Your task to perform on an android device: Open accessibility settings Image 0: 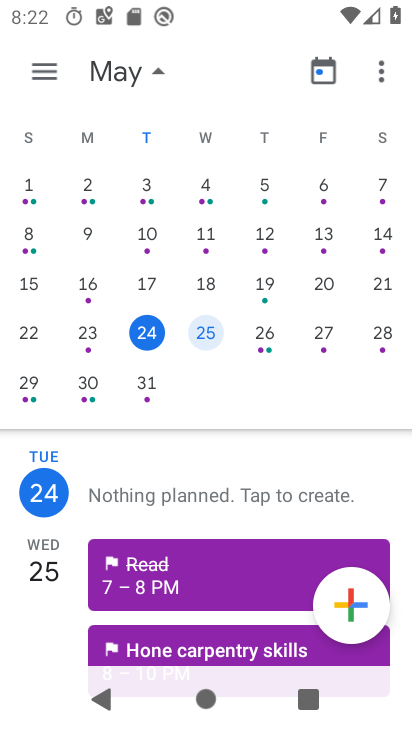
Step 0: press home button
Your task to perform on an android device: Open accessibility settings Image 1: 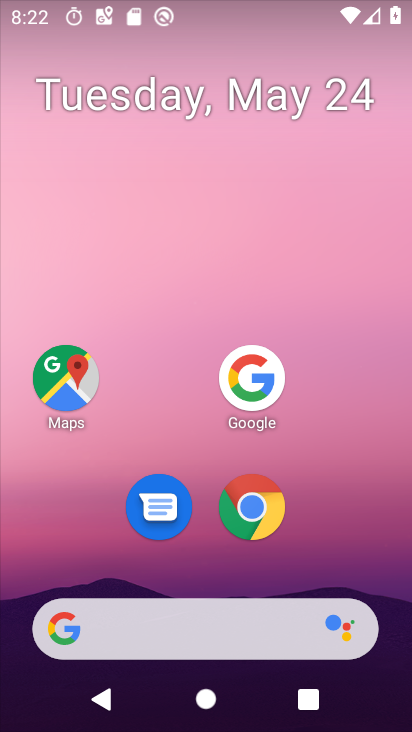
Step 1: drag from (200, 567) to (333, 146)
Your task to perform on an android device: Open accessibility settings Image 2: 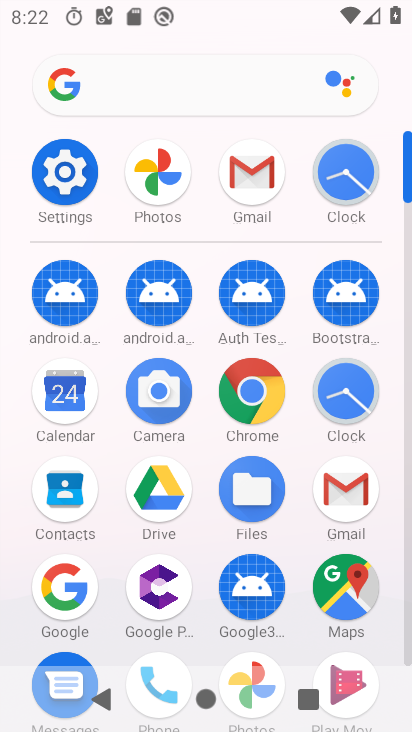
Step 2: click (72, 174)
Your task to perform on an android device: Open accessibility settings Image 3: 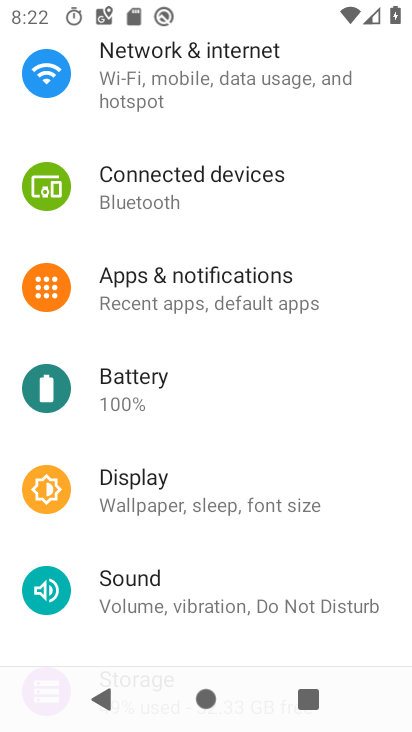
Step 3: drag from (214, 572) to (362, 103)
Your task to perform on an android device: Open accessibility settings Image 4: 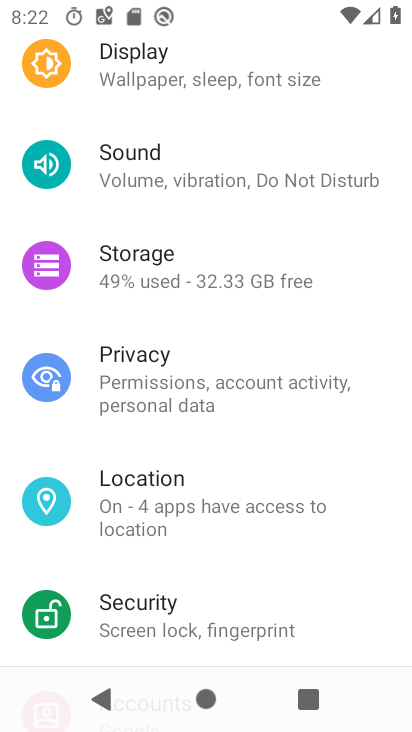
Step 4: drag from (234, 595) to (345, 100)
Your task to perform on an android device: Open accessibility settings Image 5: 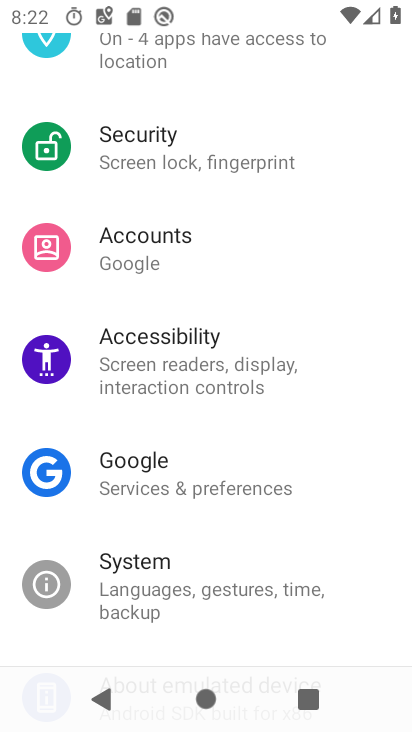
Step 5: click (175, 345)
Your task to perform on an android device: Open accessibility settings Image 6: 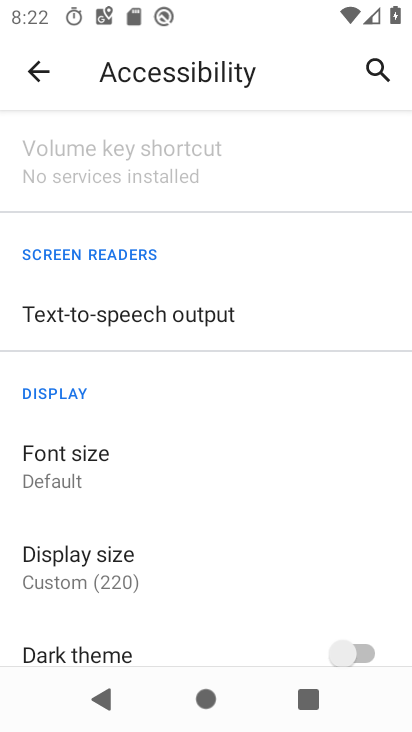
Step 6: task complete